Your task to perform on an android device: Empty the shopping cart on walmart. Add "logitech g pro" to the cart on walmart Image 0: 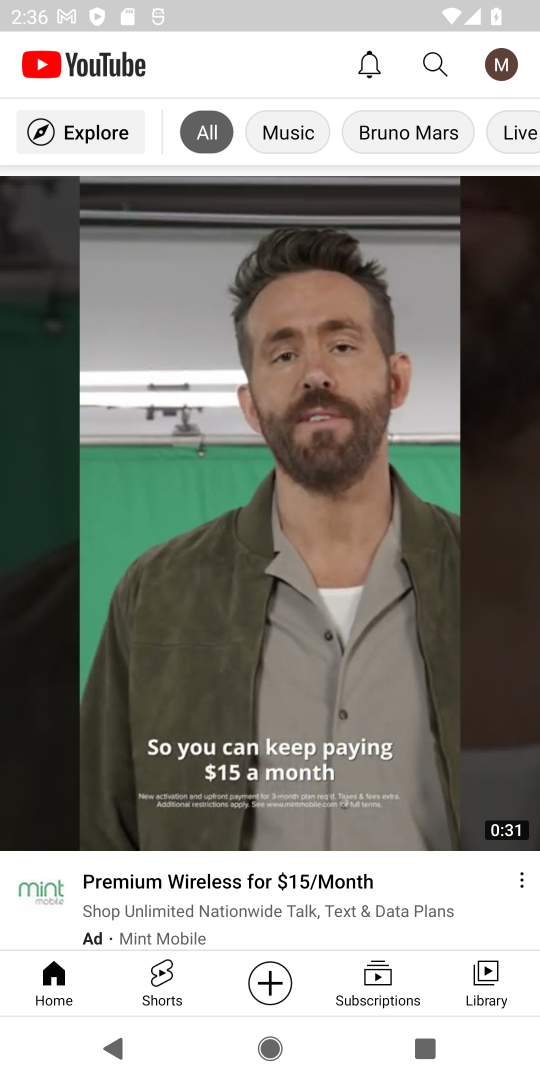
Step 0: press home button
Your task to perform on an android device: Empty the shopping cart on walmart. Add "logitech g pro" to the cart on walmart Image 1: 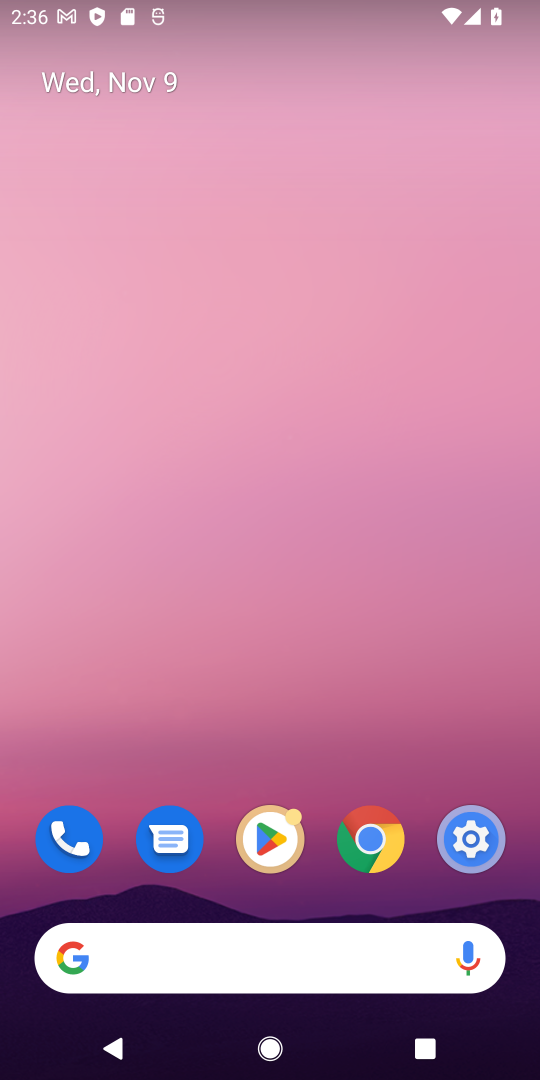
Step 1: click (186, 948)
Your task to perform on an android device: Empty the shopping cart on walmart. Add "logitech g pro" to the cart on walmart Image 2: 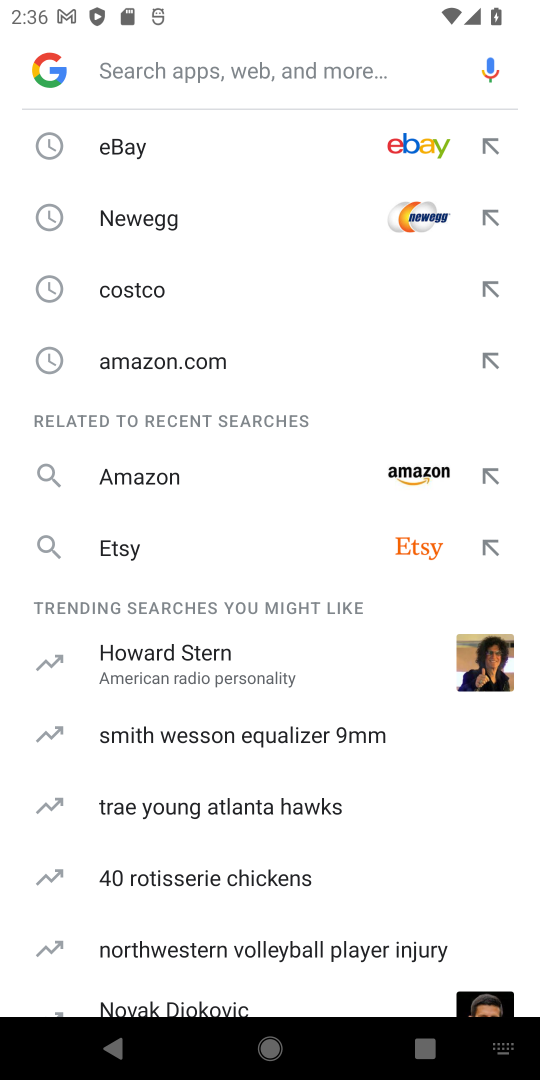
Step 2: type "walmart"
Your task to perform on an android device: Empty the shopping cart on walmart. Add "logitech g pro" to the cart on walmart Image 3: 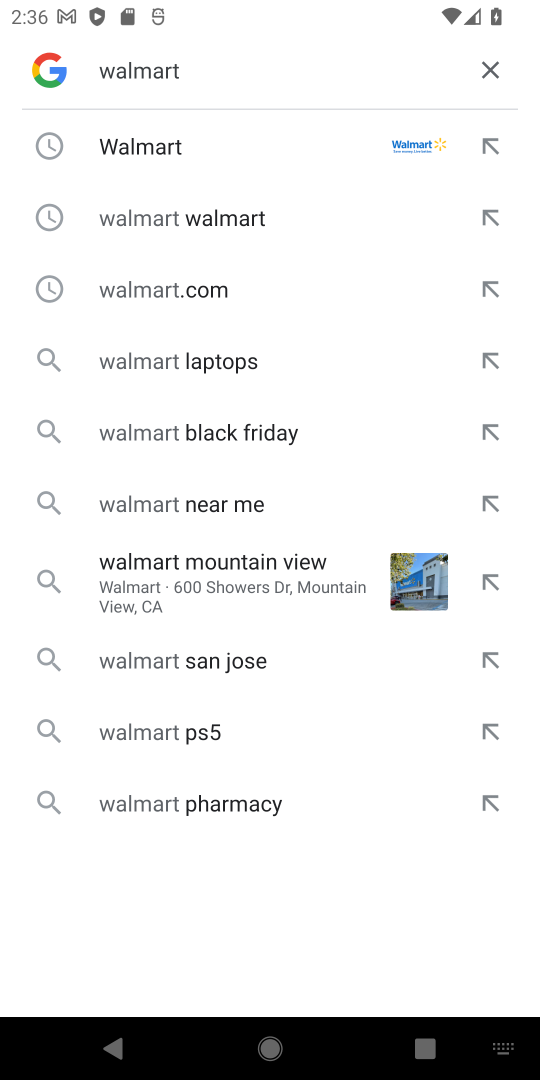
Step 3: click (175, 133)
Your task to perform on an android device: Empty the shopping cart on walmart. Add "logitech g pro" to the cart on walmart Image 4: 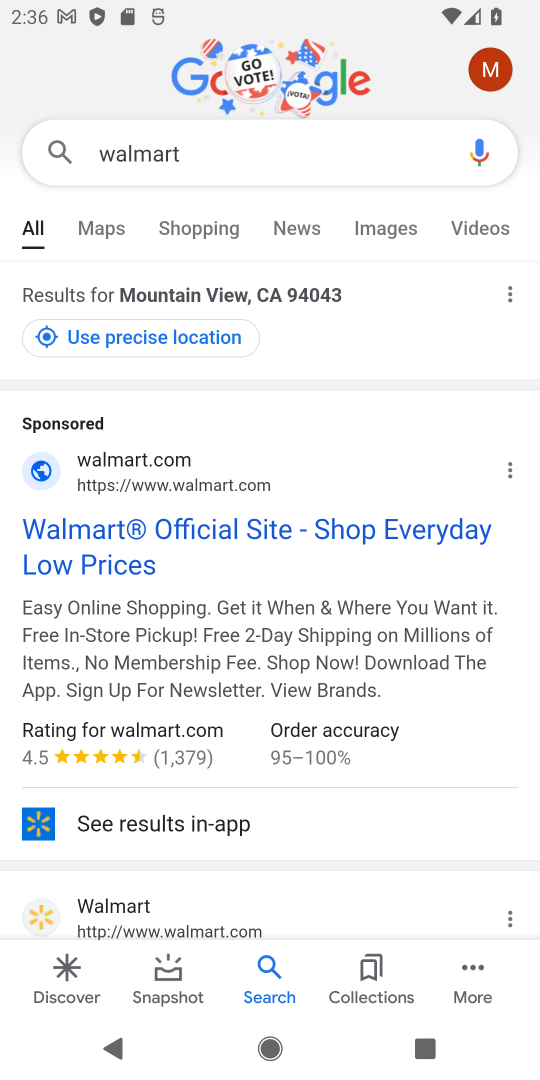
Step 4: click (125, 519)
Your task to perform on an android device: Empty the shopping cart on walmart. Add "logitech g pro" to the cart on walmart Image 5: 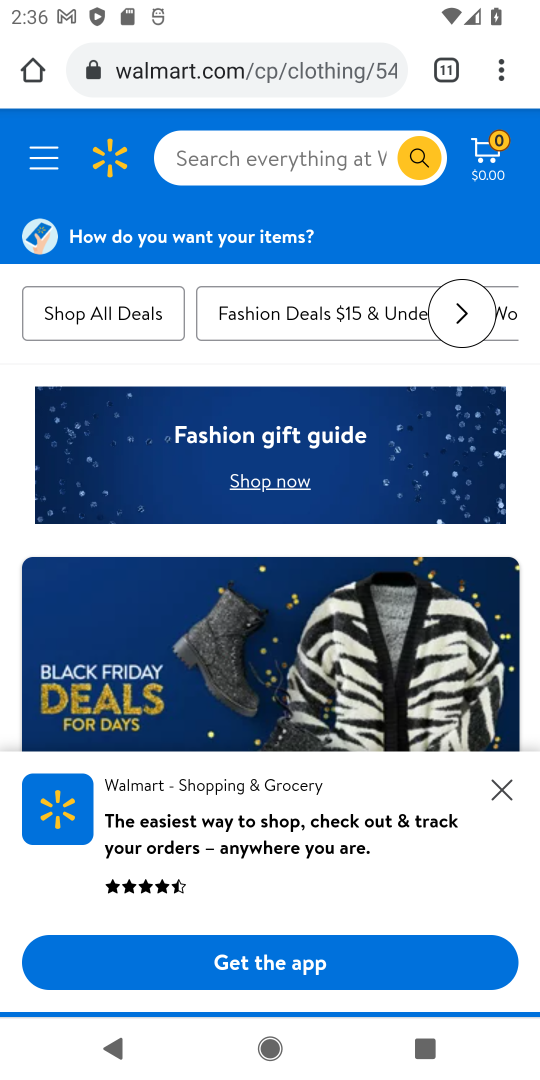
Step 5: click (270, 152)
Your task to perform on an android device: Empty the shopping cart on walmart. Add "logitech g pro" to the cart on walmart Image 6: 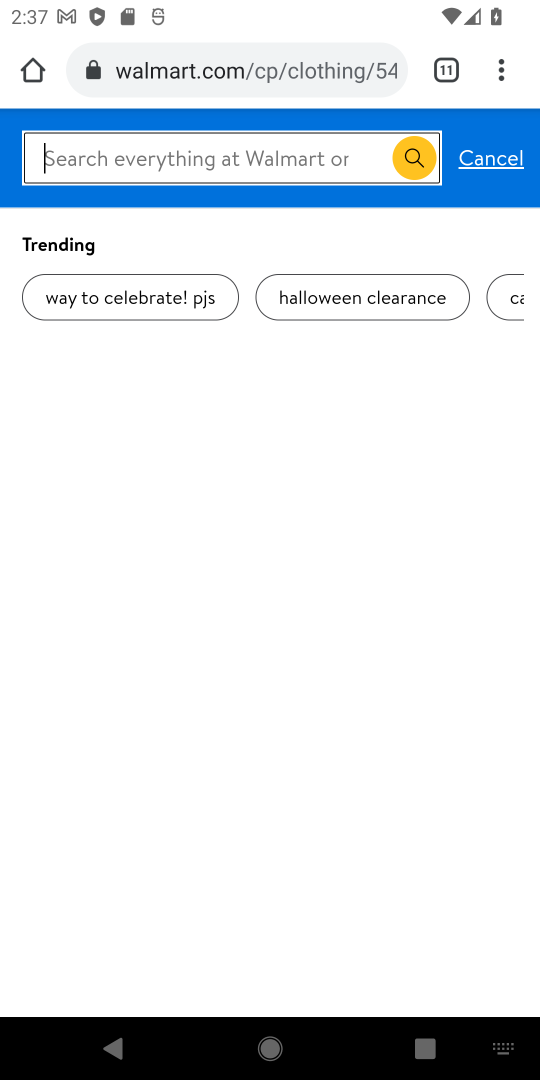
Step 6: type "logitech g pro"
Your task to perform on an android device: Empty the shopping cart on walmart. Add "logitech g pro" to the cart on walmart Image 7: 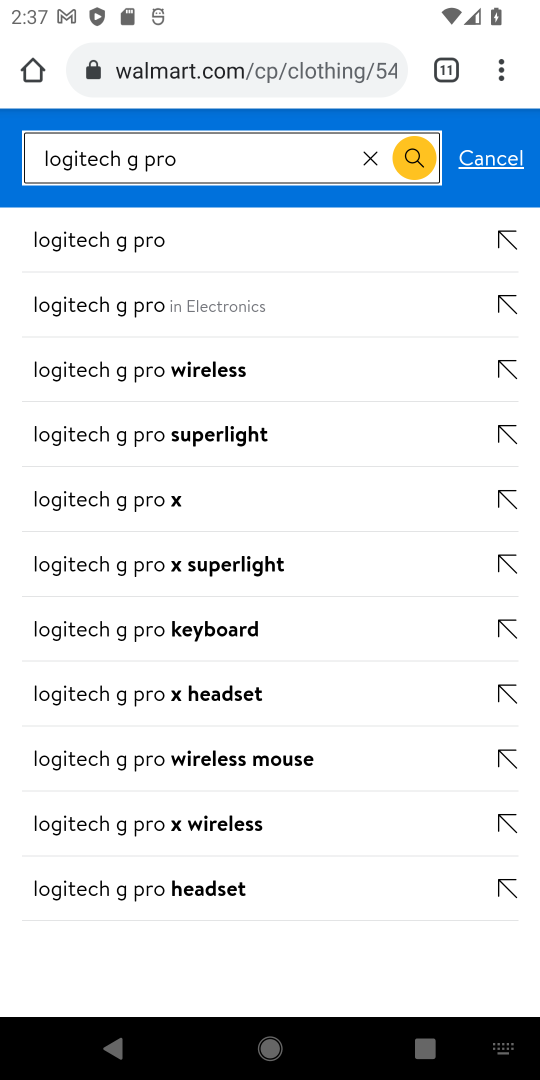
Step 7: click (190, 251)
Your task to perform on an android device: Empty the shopping cart on walmart. Add "logitech g pro" to the cart on walmart Image 8: 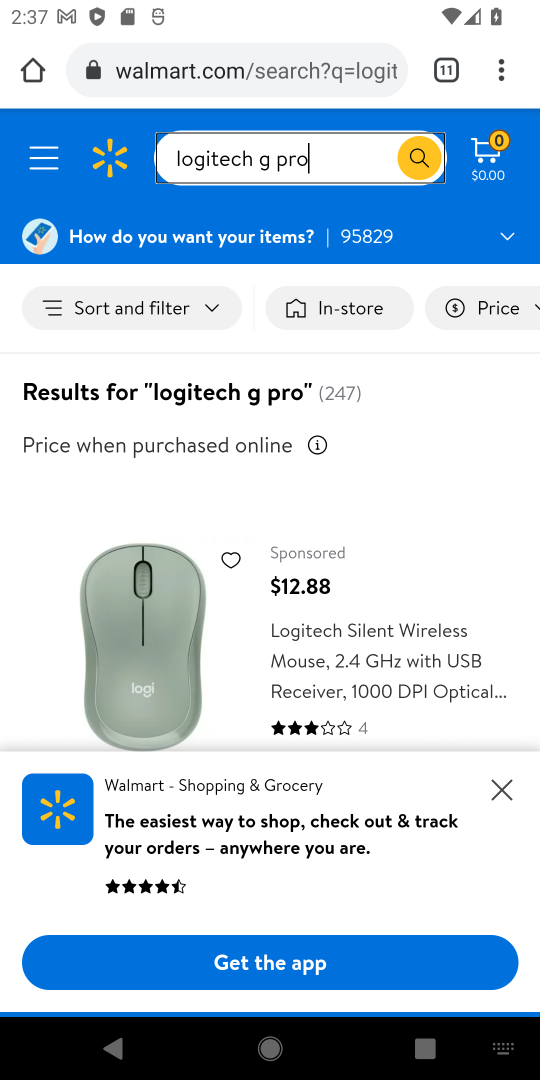
Step 8: click (500, 796)
Your task to perform on an android device: Empty the shopping cart on walmart. Add "logitech g pro" to the cart on walmart Image 9: 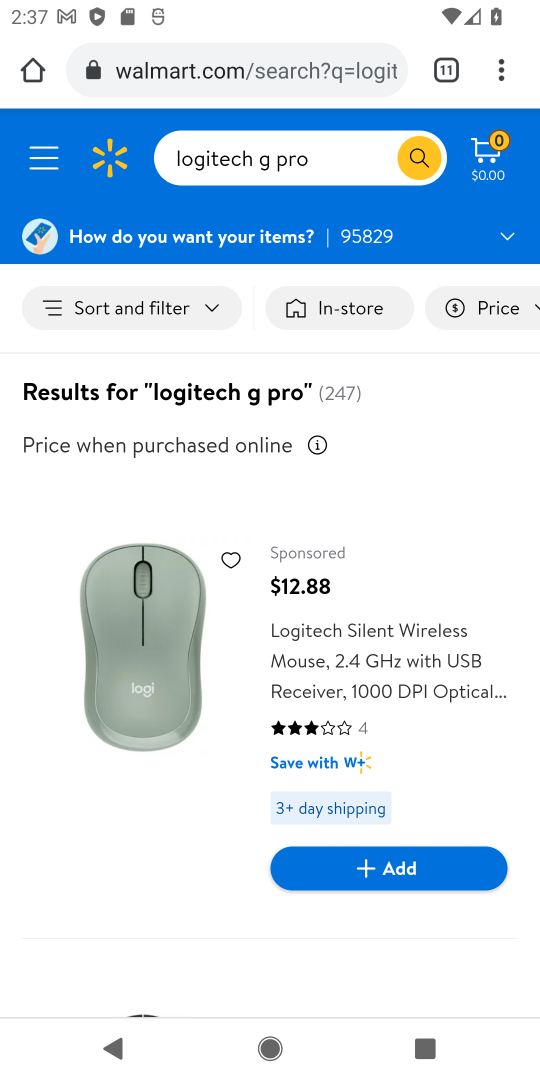
Step 9: click (433, 885)
Your task to perform on an android device: Empty the shopping cart on walmart. Add "logitech g pro" to the cart on walmart Image 10: 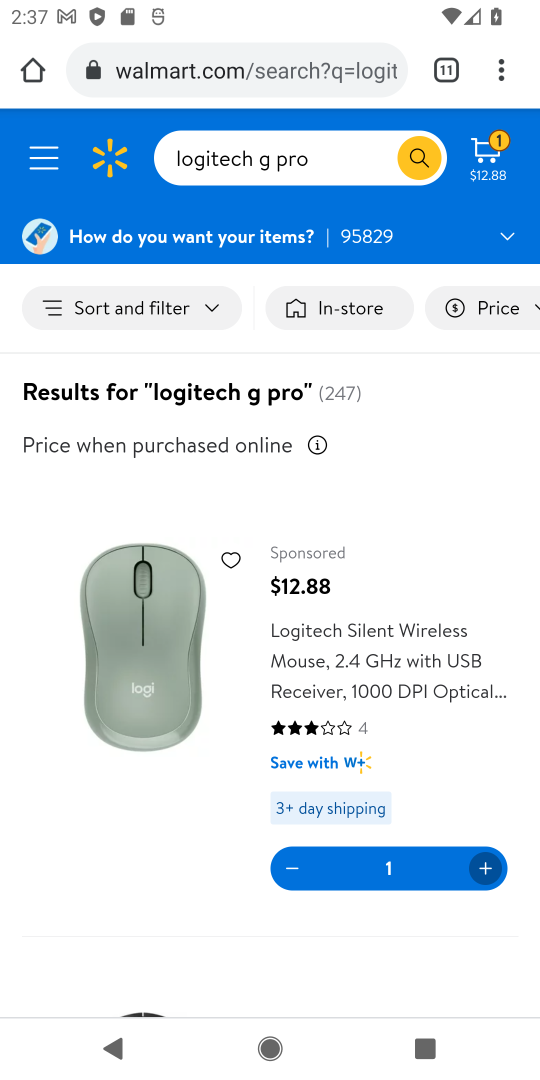
Step 10: task complete